Your task to perform on an android device: turn on data saver in the chrome app Image 0: 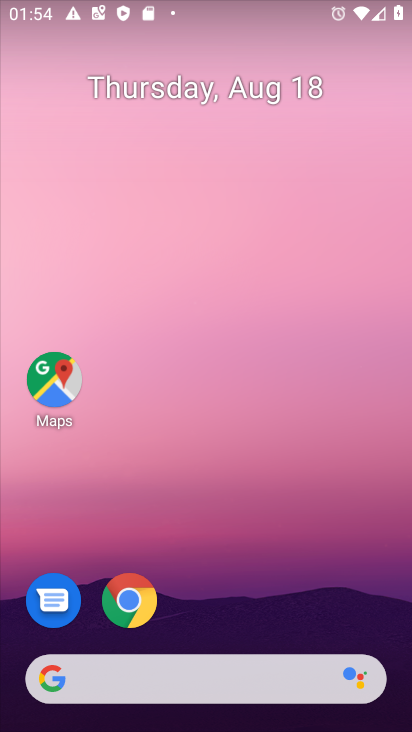
Step 0: press home button
Your task to perform on an android device: turn on data saver in the chrome app Image 1: 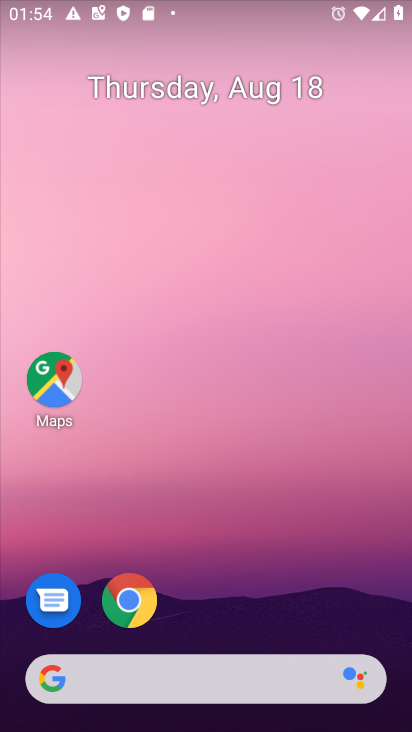
Step 1: click (132, 605)
Your task to perform on an android device: turn on data saver in the chrome app Image 2: 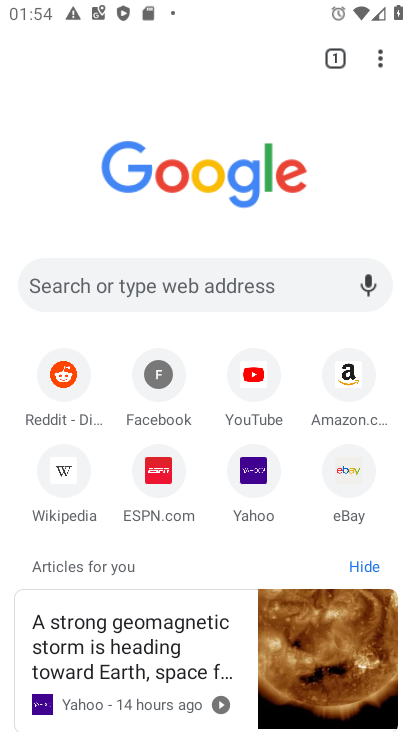
Step 2: drag from (379, 57) to (167, 496)
Your task to perform on an android device: turn on data saver in the chrome app Image 3: 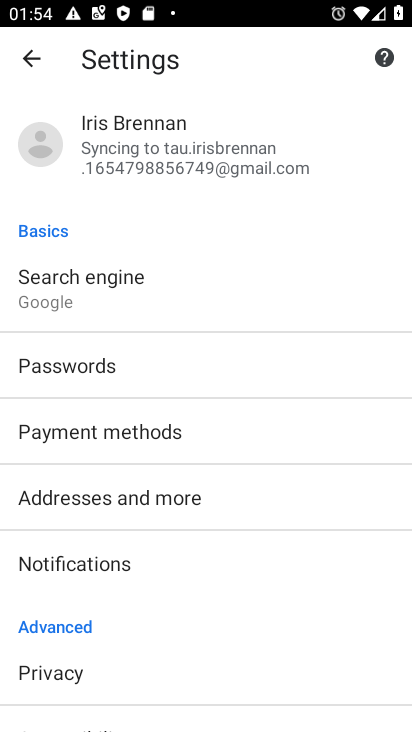
Step 3: drag from (136, 620) to (154, 286)
Your task to perform on an android device: turn on data saver in the chrome app Image 4: 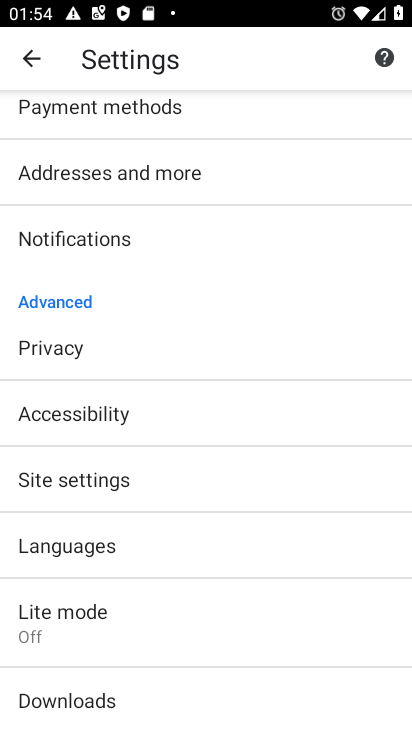
Step 4: click (72, 622)
Your task to perform on an android device: turn on data saver in the chrome app Image 5: 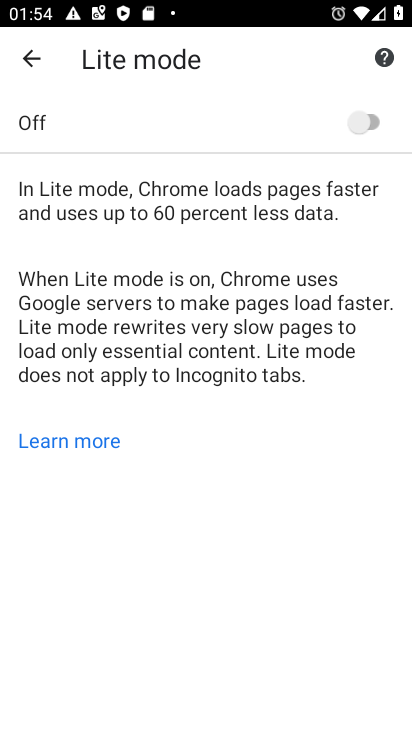
Step 5: click (355, 118)
Your task to perform on an android device: turn on data saver in the chrome app Image 6: 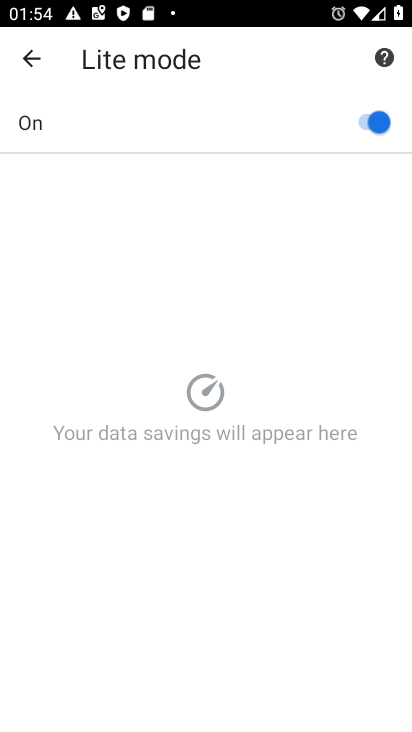
Step 6: task complete